Your task to perform on an android device: Show me some nice wallpapers for my tablet Image 0: 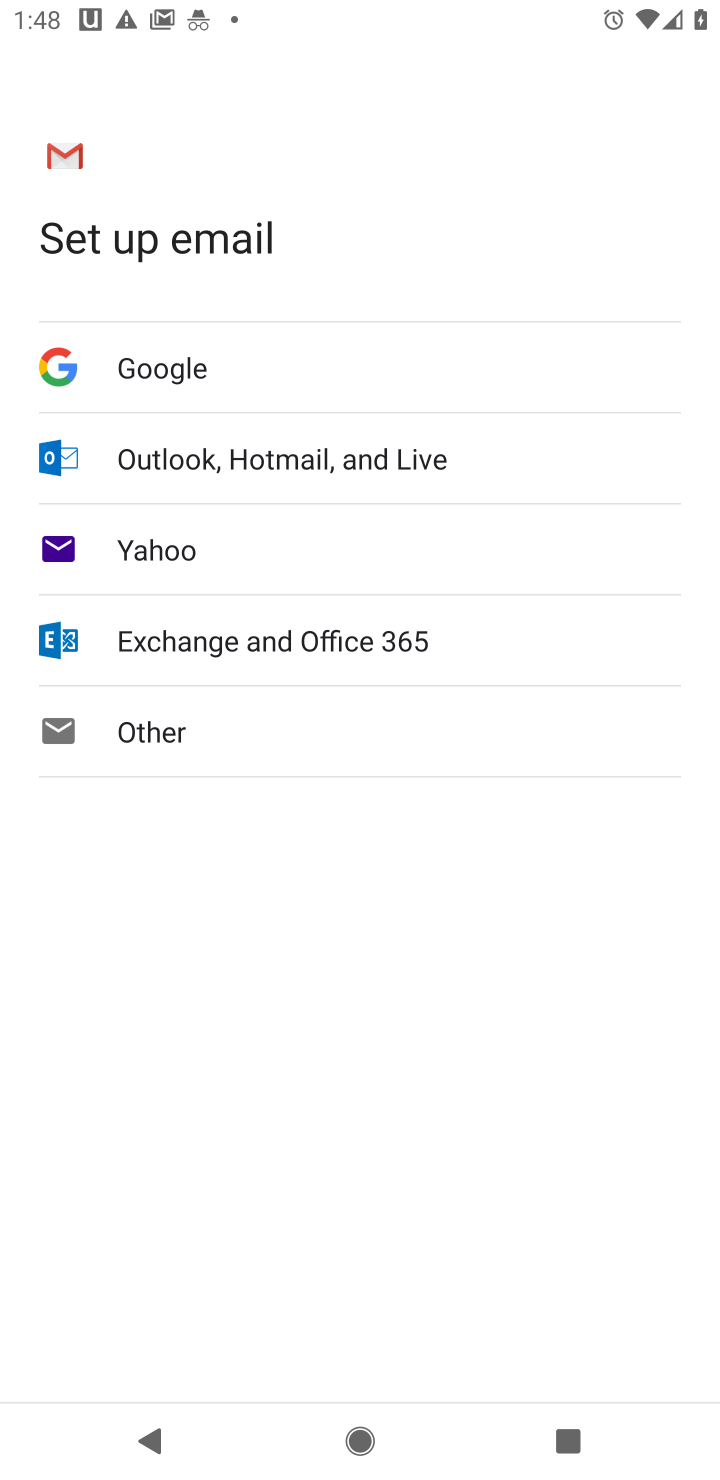
Step 0: press home button
Your task to perform on an android device: Show me some nice wallpapers for my tablet Image 1: 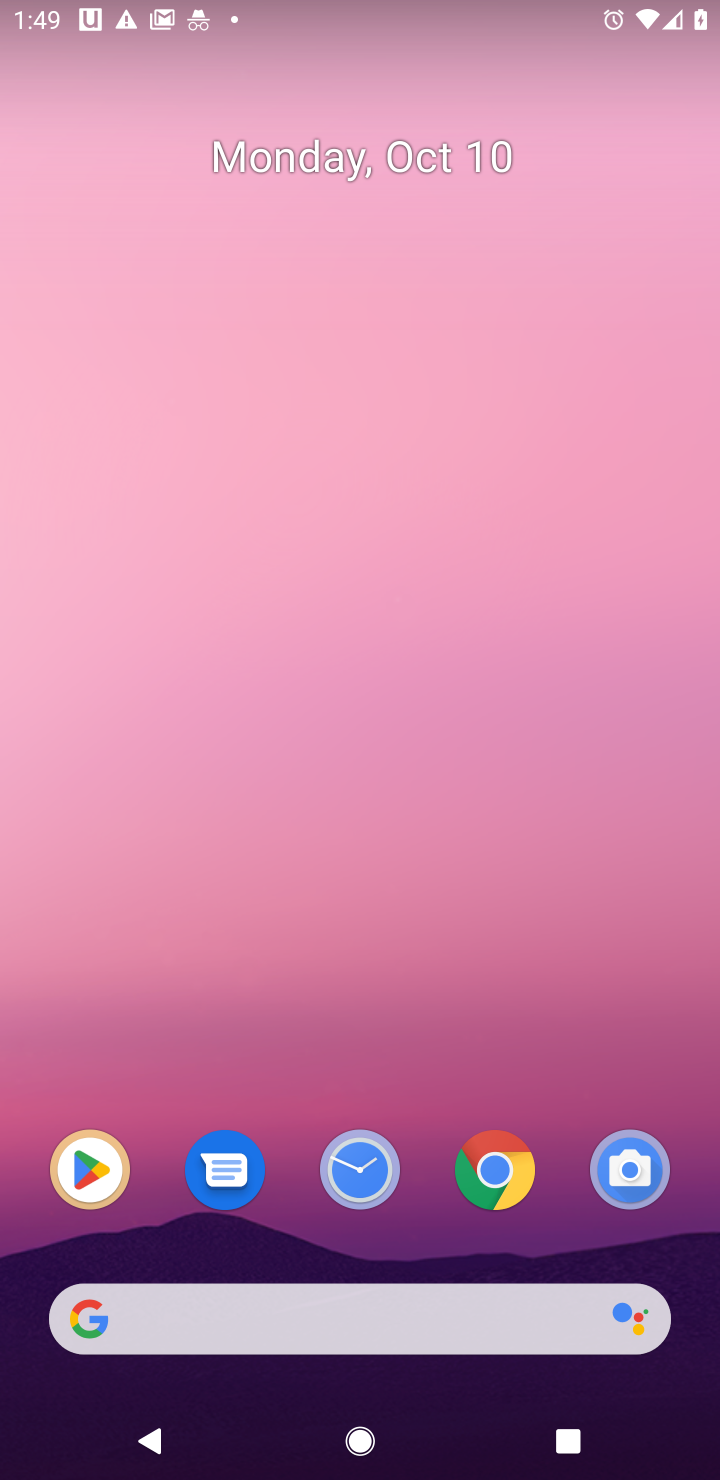
Step 1: click (502, 1169)
Your task to perform on an android device: Show me some nice wallpapers for my tablet Image 2: 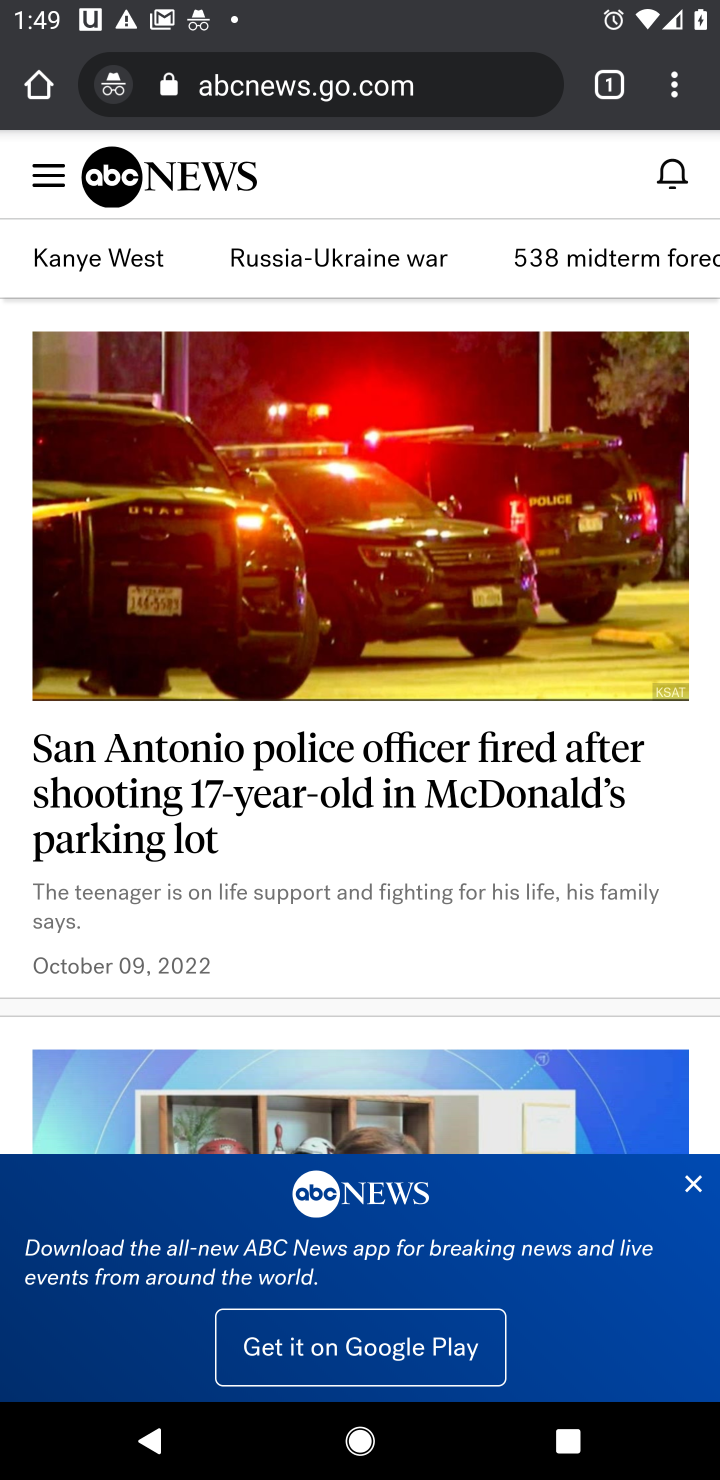
Step 2: click (421, 97)
Your task to perform on an android device: Show me some nice wallpapers for my tablet Image 3: 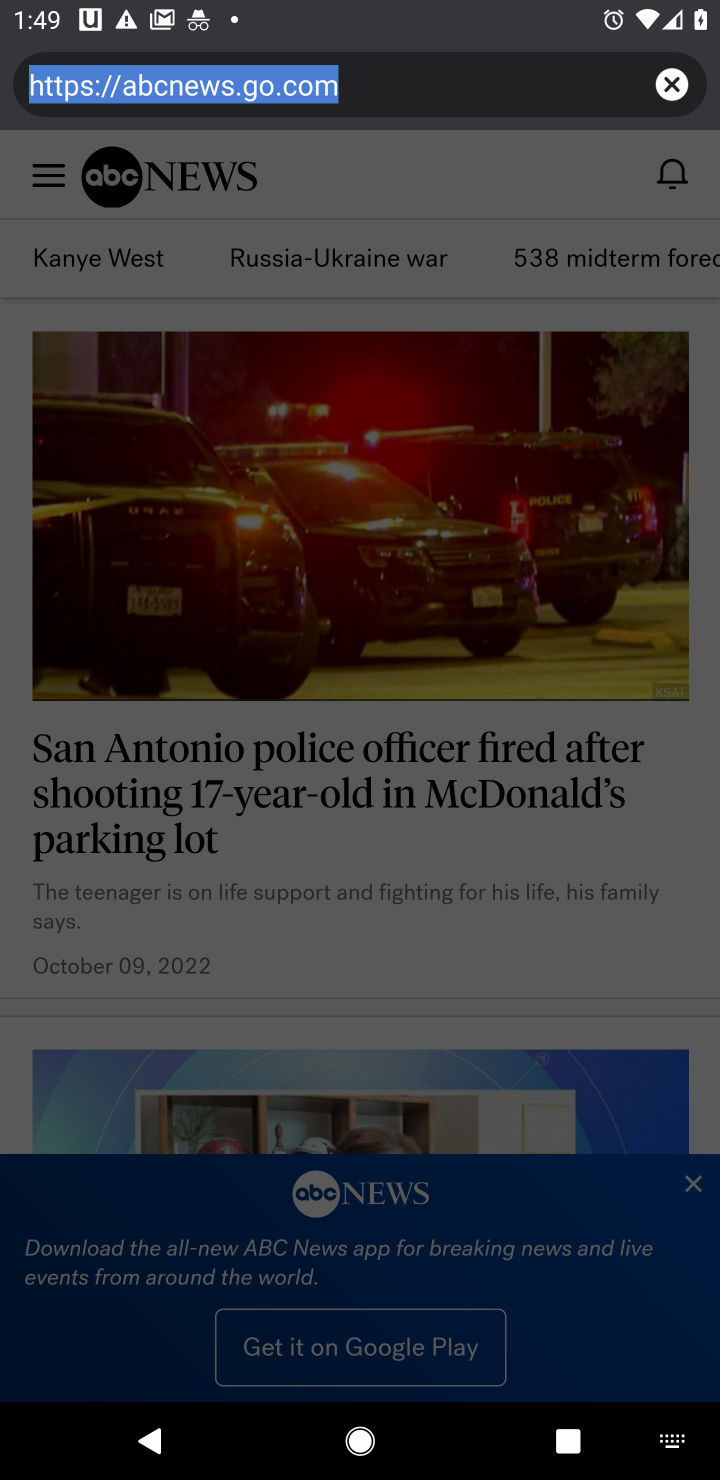
Step 3: click (671, 83)
Your task to perform on an android device: Show me some nice wallpapers for my tablet Image 4: 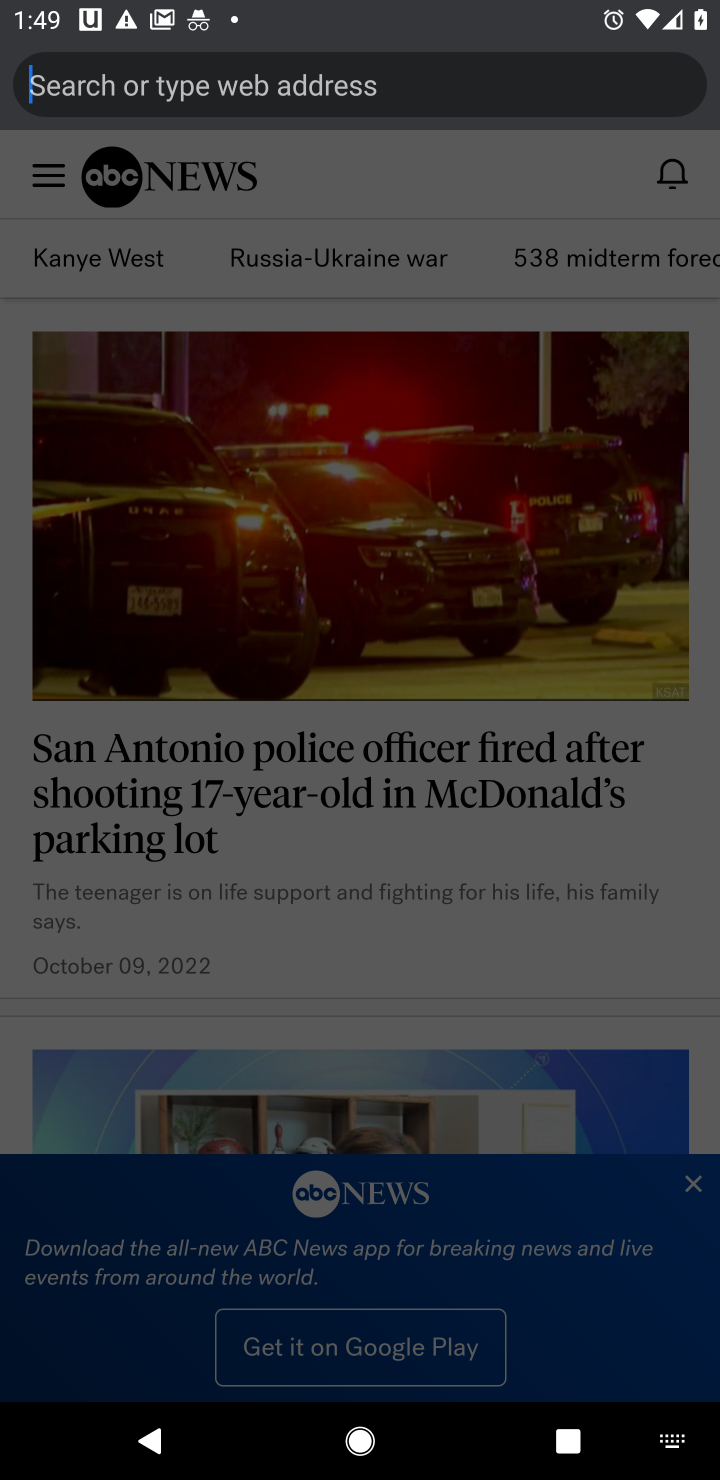
Step 4: type "Show me some nice wallpapers for my tablet"
Your task to perform on an android device: Show me some nice wallpapers for my tablet Image 5: 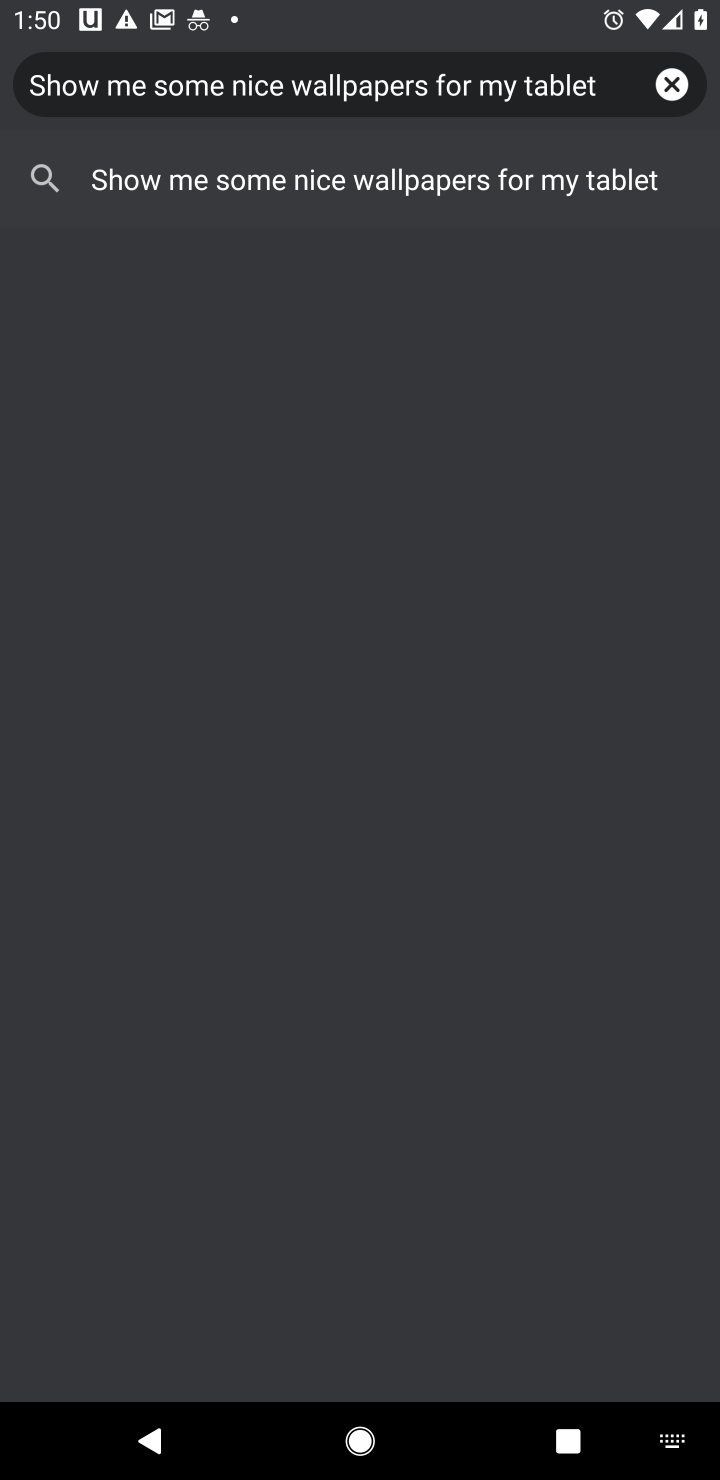
Step 5: click (198, 201)
Your task to perform on an android device: Show me some nice wallpapers for my tablet Image 6: 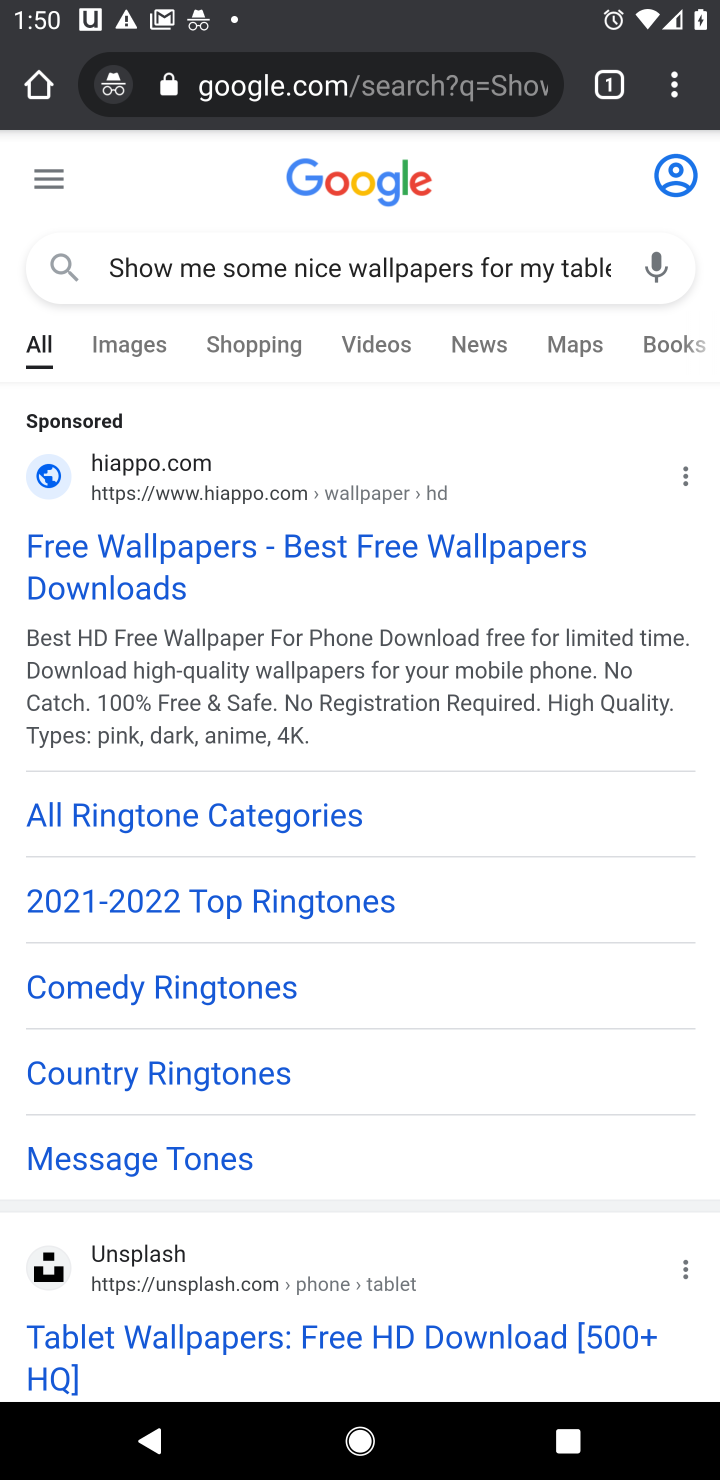
Step 6: click (87, 541)
Your task to perform on an android device: Show me some nice wallpapers for my tablet Image 7: 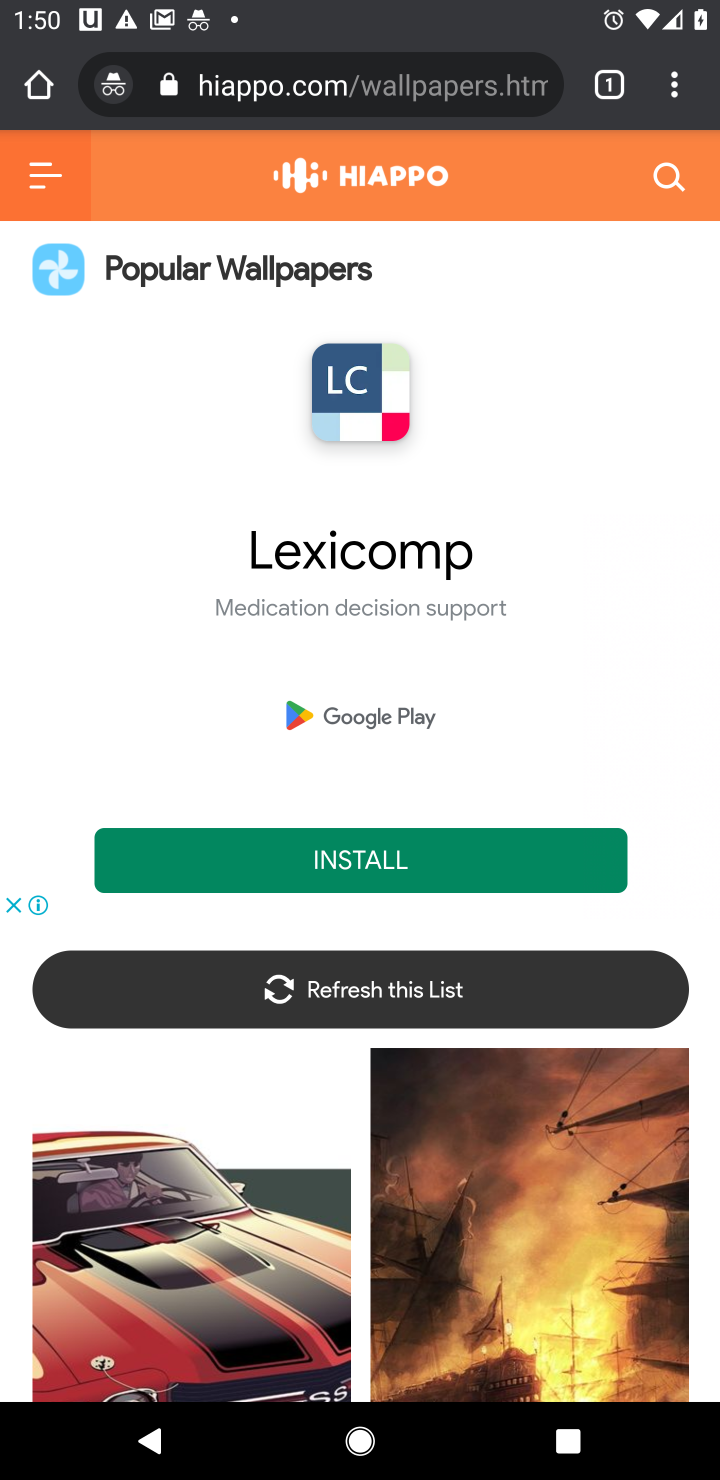
Step 7: task complete